Your task to perform on an android device: What's on my calendar tomorrow? Image 0: 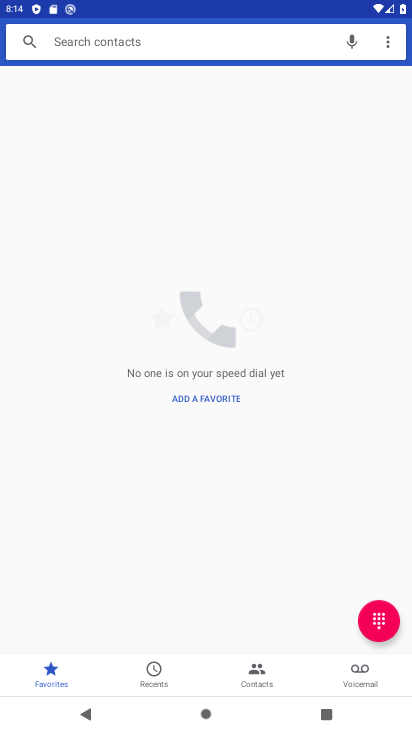
Step 0: press home button
Your task to perform on an android device: What's on my calendar tomorrow? Image 1: 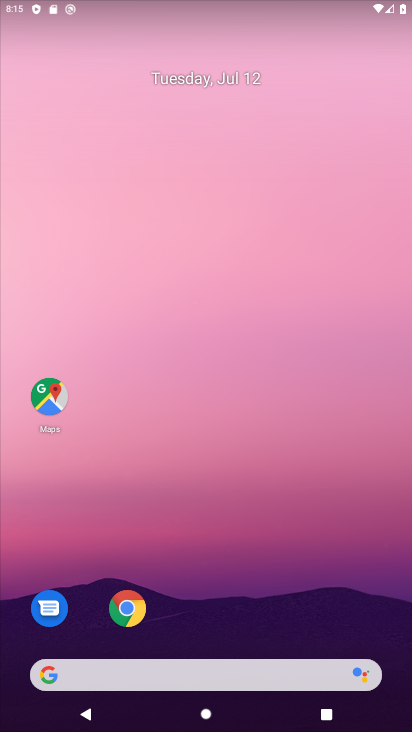
Step 1: drag from (198, 557) to (212, 33)
Your task to perform on an android device: What's on my calendar tomorrow? Image 2: 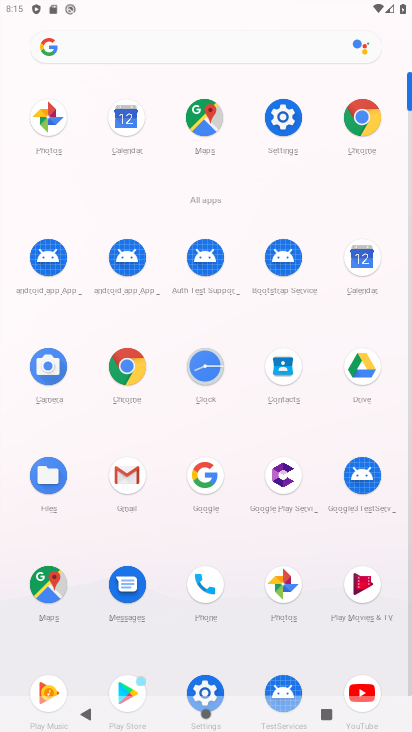
Step 2: click (363, 256)
Your task to perform on an android device: What's on my calendar tomorrow? Image 3: 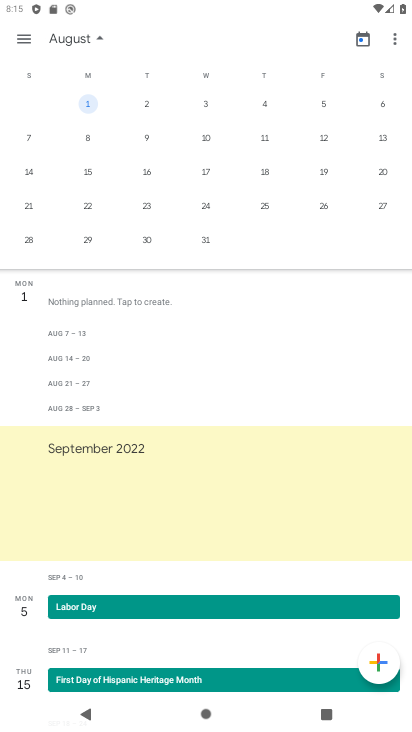
Step 3: drag from (108, 182) to (380, 191)
Your task to perform on an android device: What's on my calendar tomorrow? Image 4: 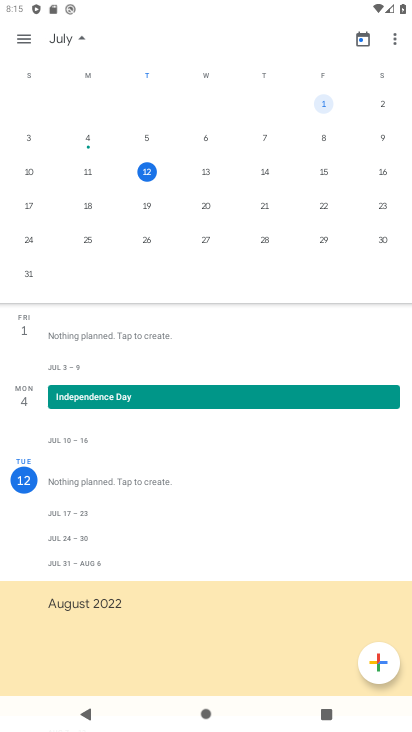
Step 4: click (204, 174)
Your task to perform on an android device: What's on my calendar tomorrow? Image 5: 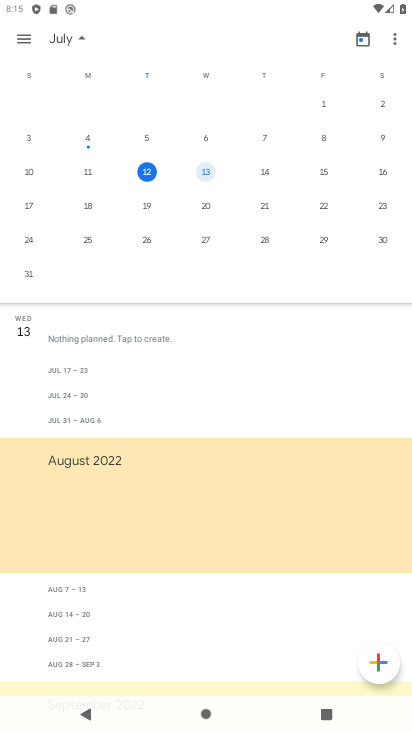
Step 5: task complete